Your task to perform on an android device: set an alarm Image 0: 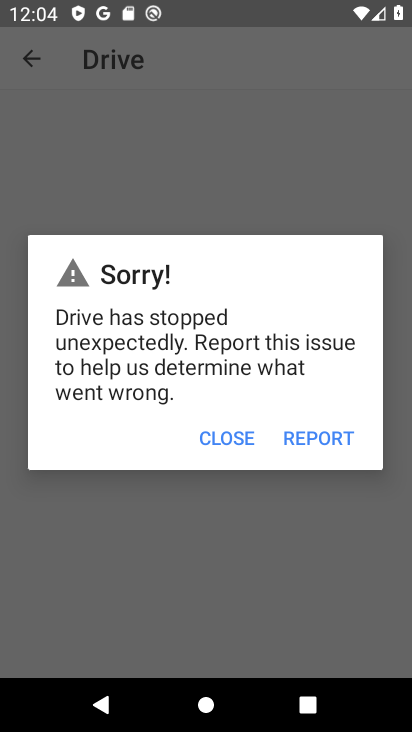
Step 0: press home button
Your task to perform on an android device: set an alarm Image 1: 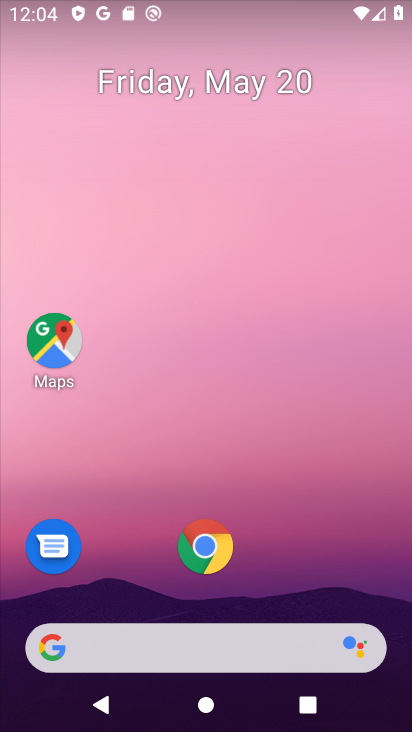
Step 1: drag from (307, 557) to (281, 40)
Your task to perform on an android device: set an alarm Image 2: 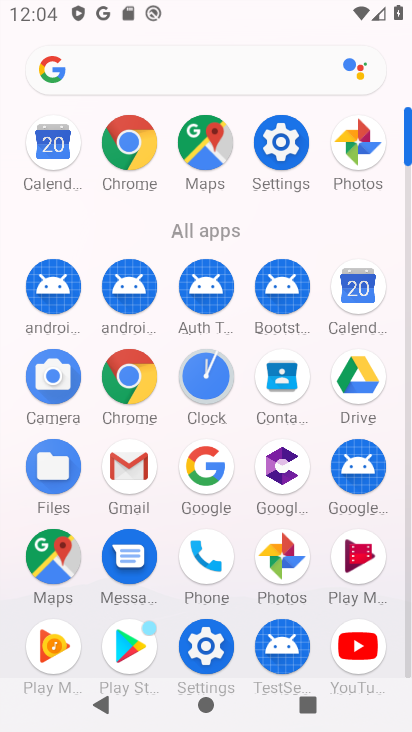
Step 2: click (209, 376)
Your task to perform on an android device: set an alarm Image 3: 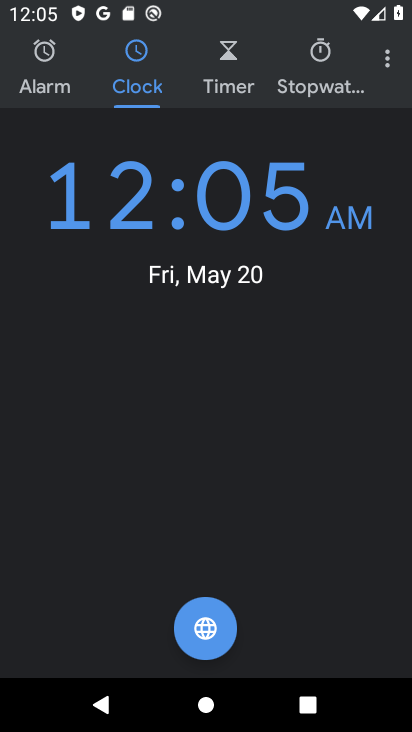
Step 3: click (64, 75)
Your task to perform on an android device: set an alarm Image 4: 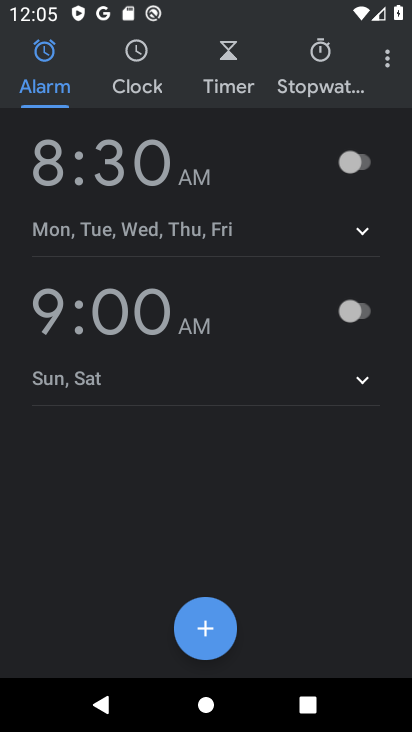
Step 4: click (206, 627)
Your task to perform on an android device: set an alarm Image 5: 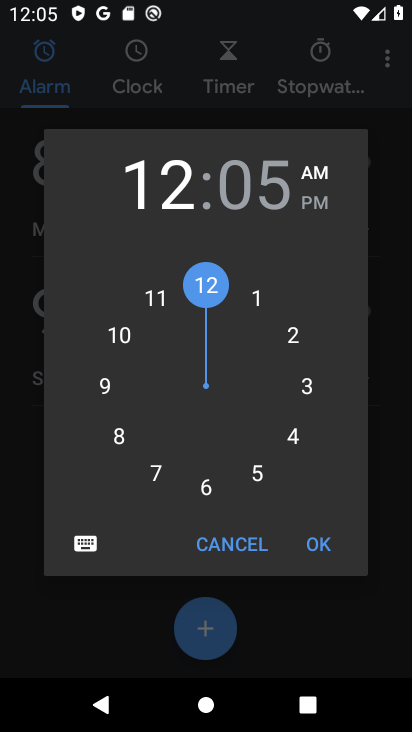
Step 5: click (312, 540)
Your task to perform on an android device: set an alarm Image 6: 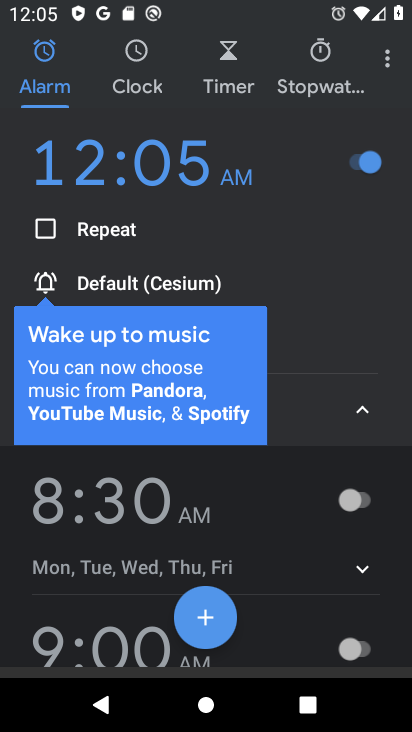
Step 6: task complete